Your task to perform on an android device: Clear all items from cart on amazon. Image 0: 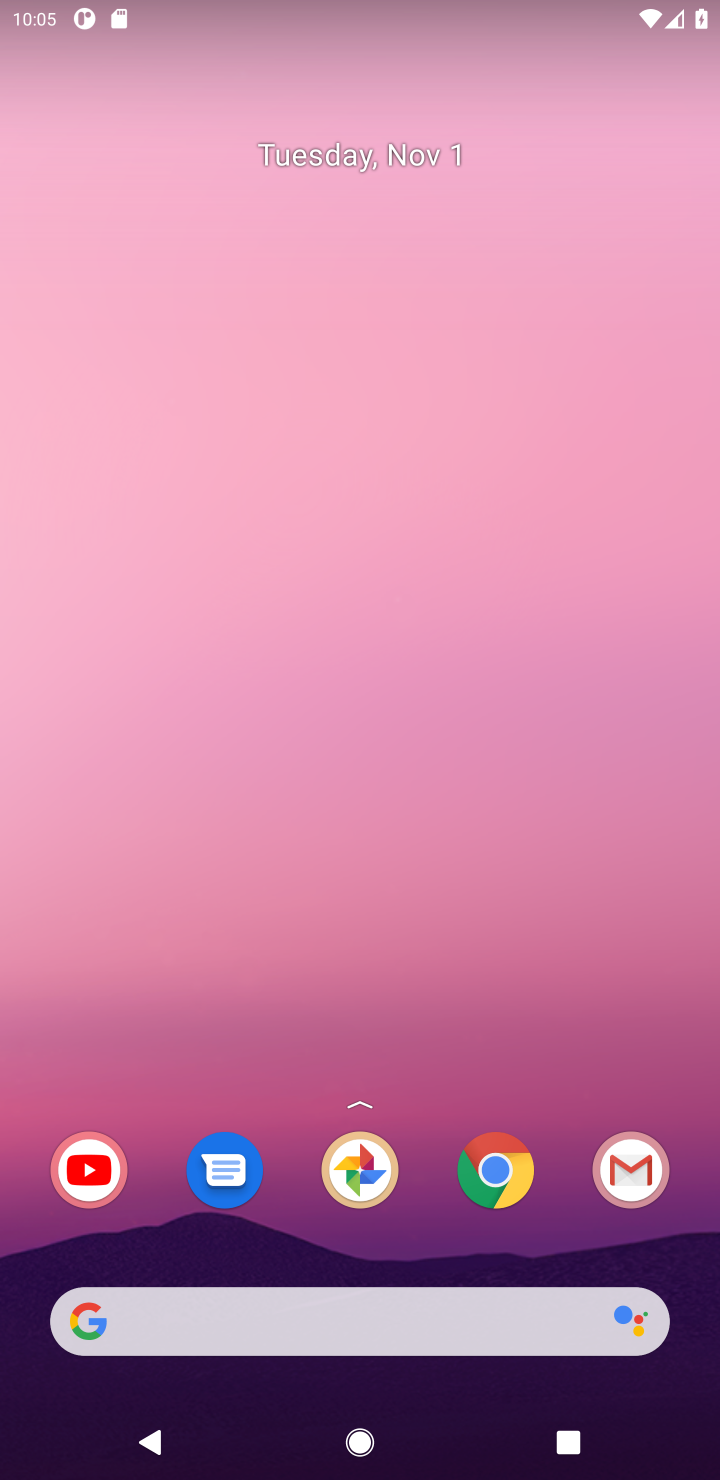
Step 0: click (493, 1183)
Your task to perform on an android device: Clear all items from cart on amazon. Image 1: 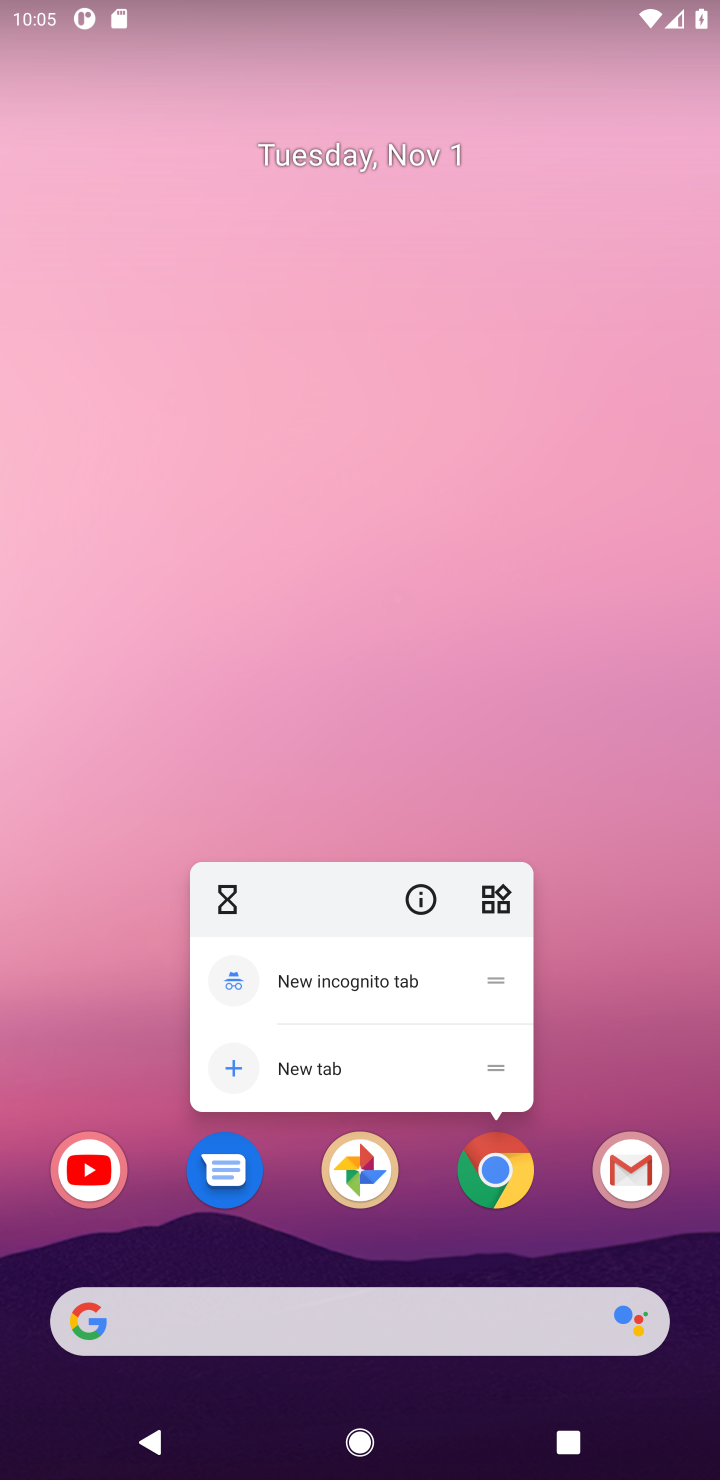
Step 1: click (504, 1175)
Your task to perform on an android device: Clear all items from cart on amazon. Image 2: 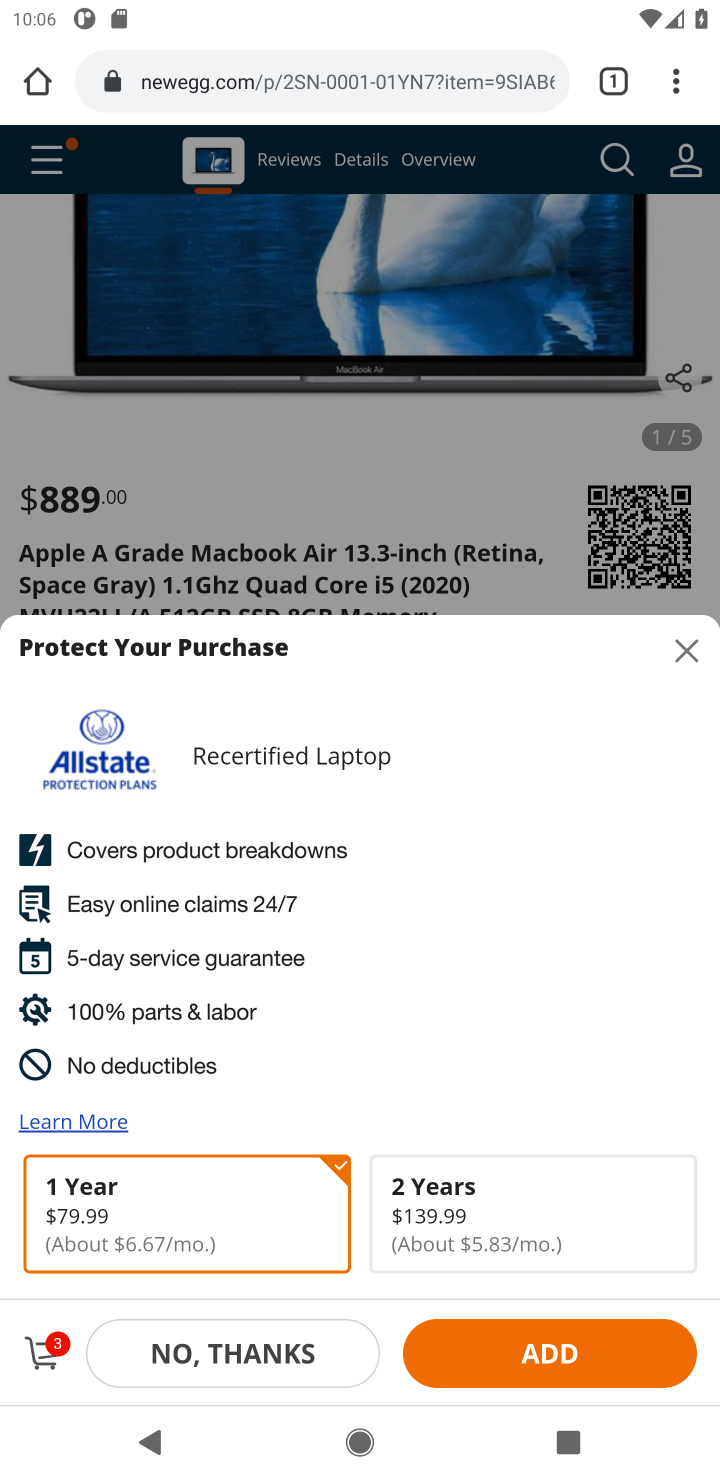
Step 2: click (440, 82)
Your task to perform on an android device: Clear all items from cart on amazon. Image 3: 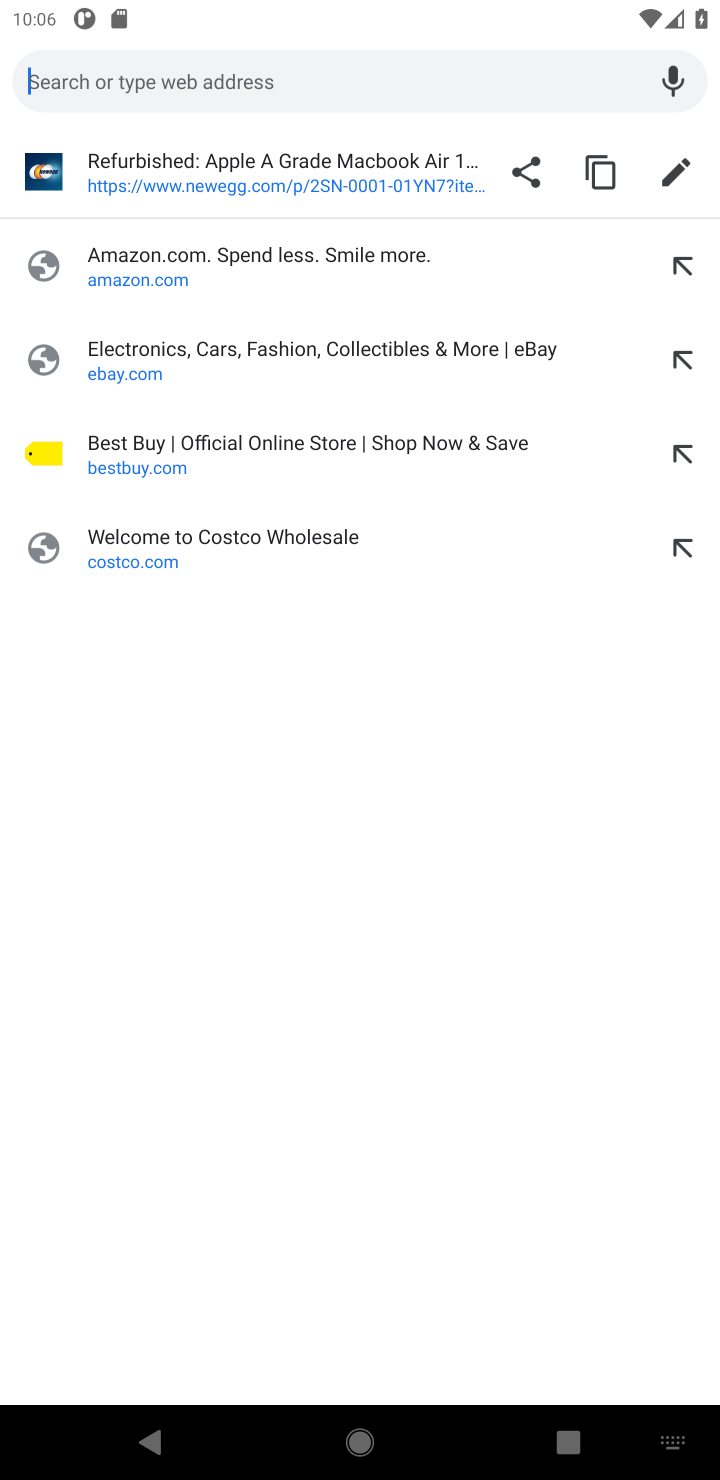
Step 3: type "amazon"
Your task to perform on an android device: Clear all items from cart on amazon. Image 4: 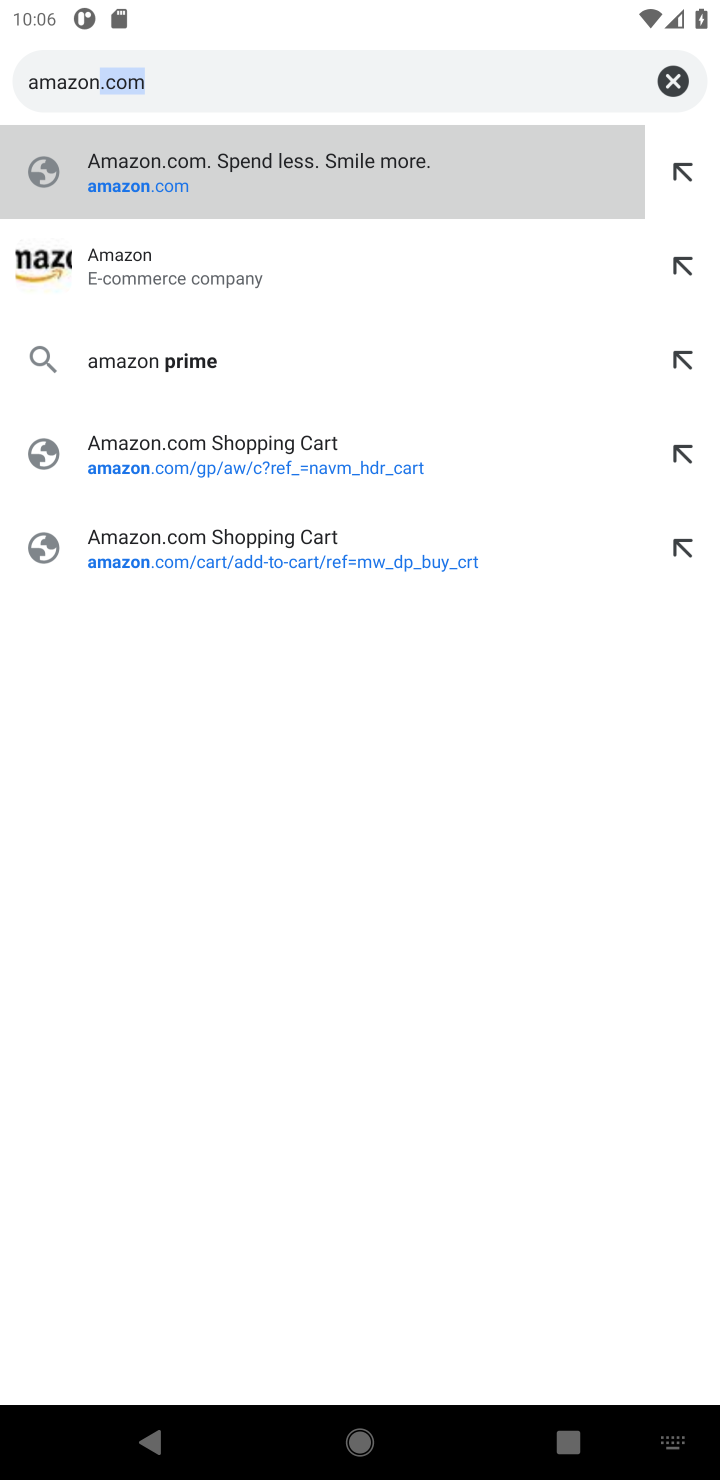
Step 4: press enter
Your task to perform on an android device: Clear all items from cart on amazon. Image 5: 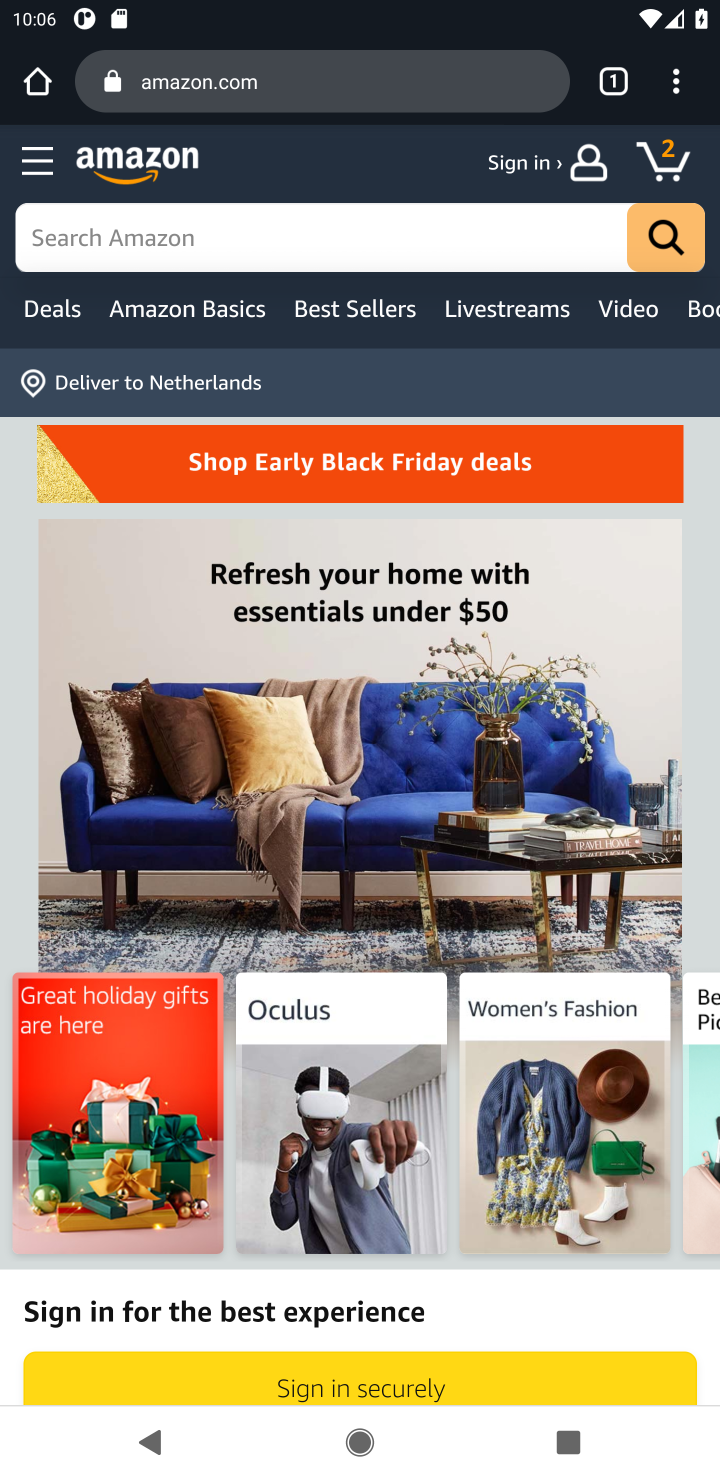
Step 5: click (657, 155)
Your task to perform on an android device: Clear all items from cart on amazon. Image 6: 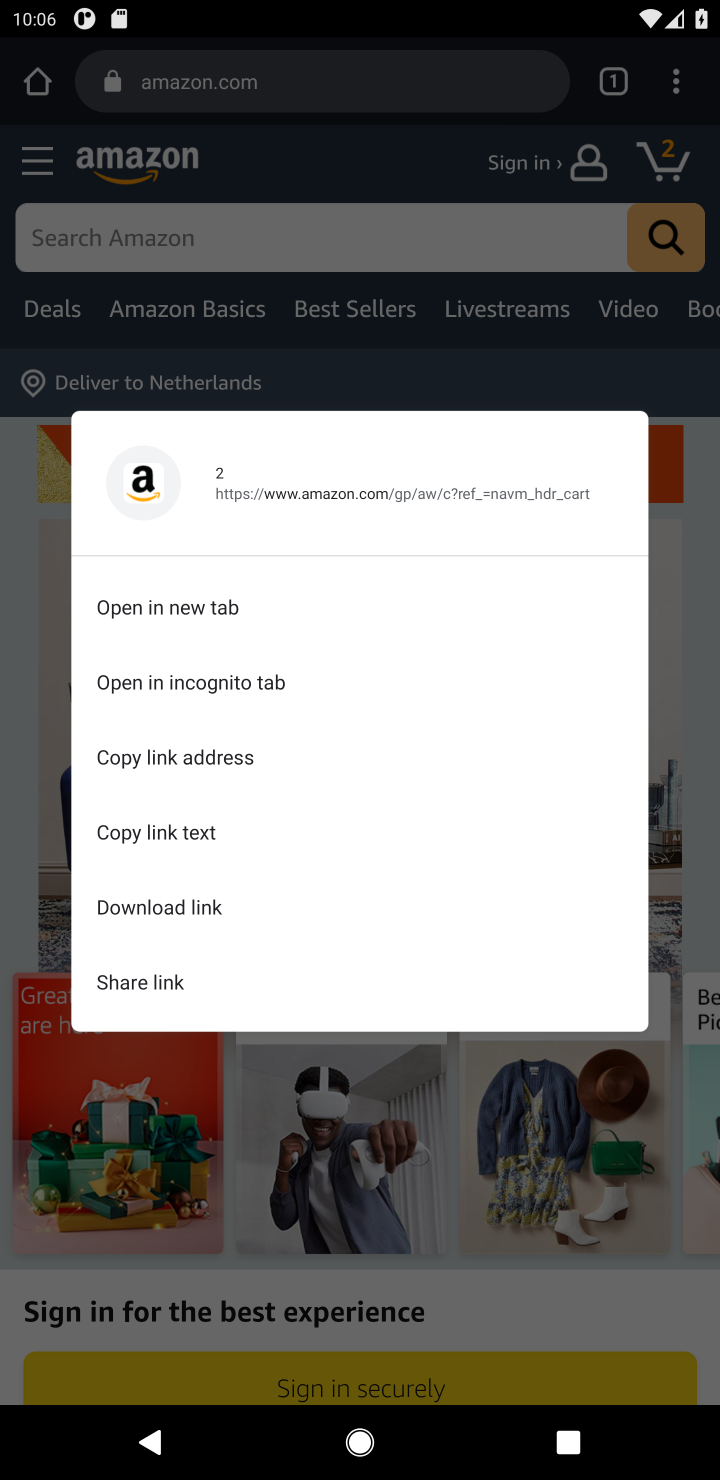
Step 6: click (685, 179)
Your task to perform on an android device: Clear all items from cart on amazon. Image 7: 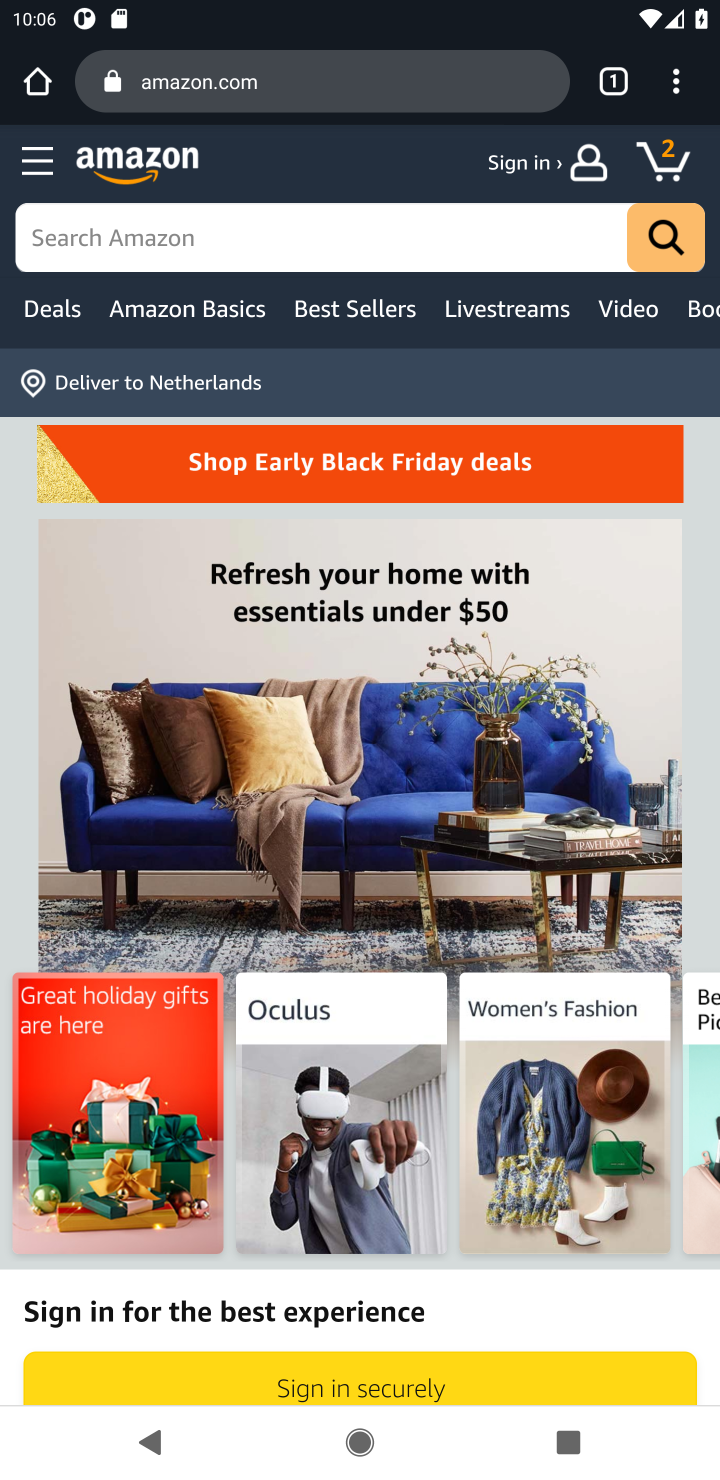
Step 7: click (656, 182)
Your task to perform on an android device: Clear all items from cart on amazon. Image 8: 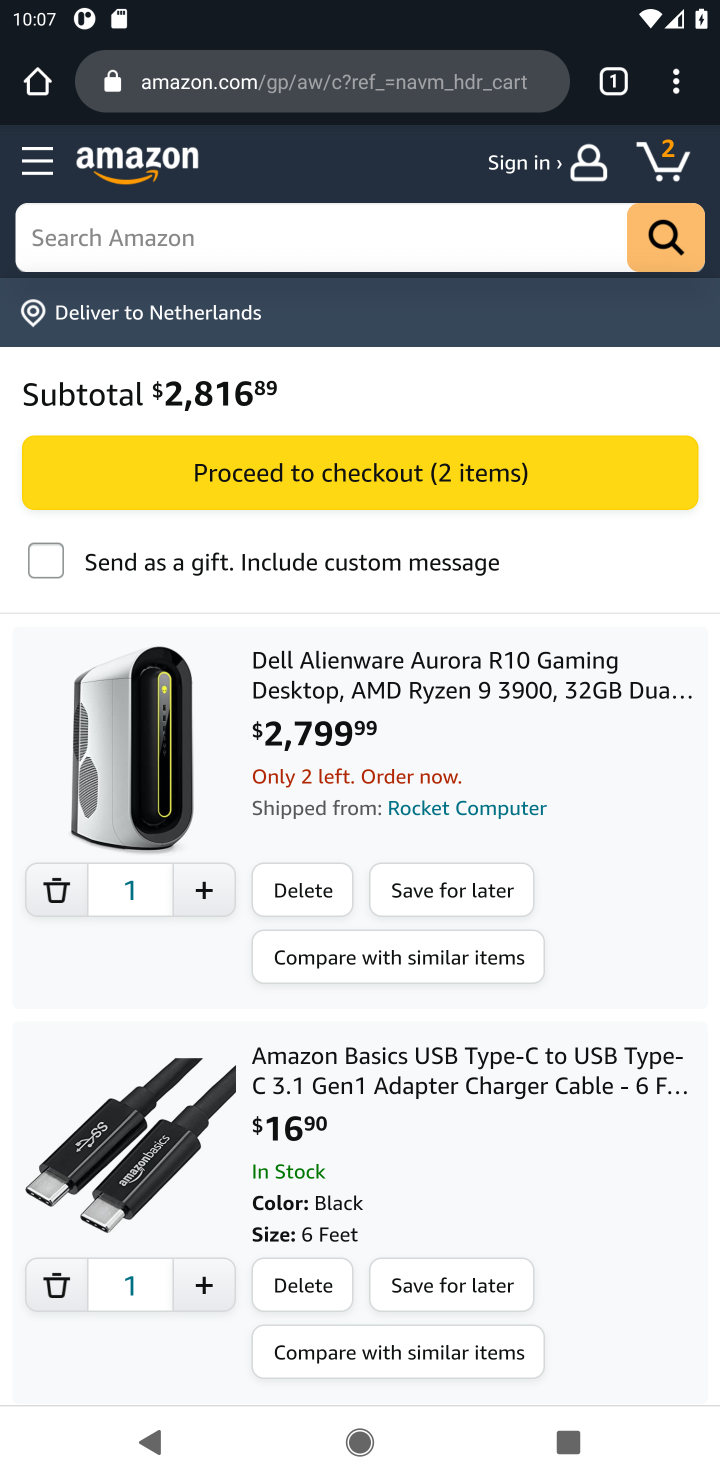
Step 8: click (66, 886)
Your task to perform on an android device: Clear all items from cart on amazon. Image 9: 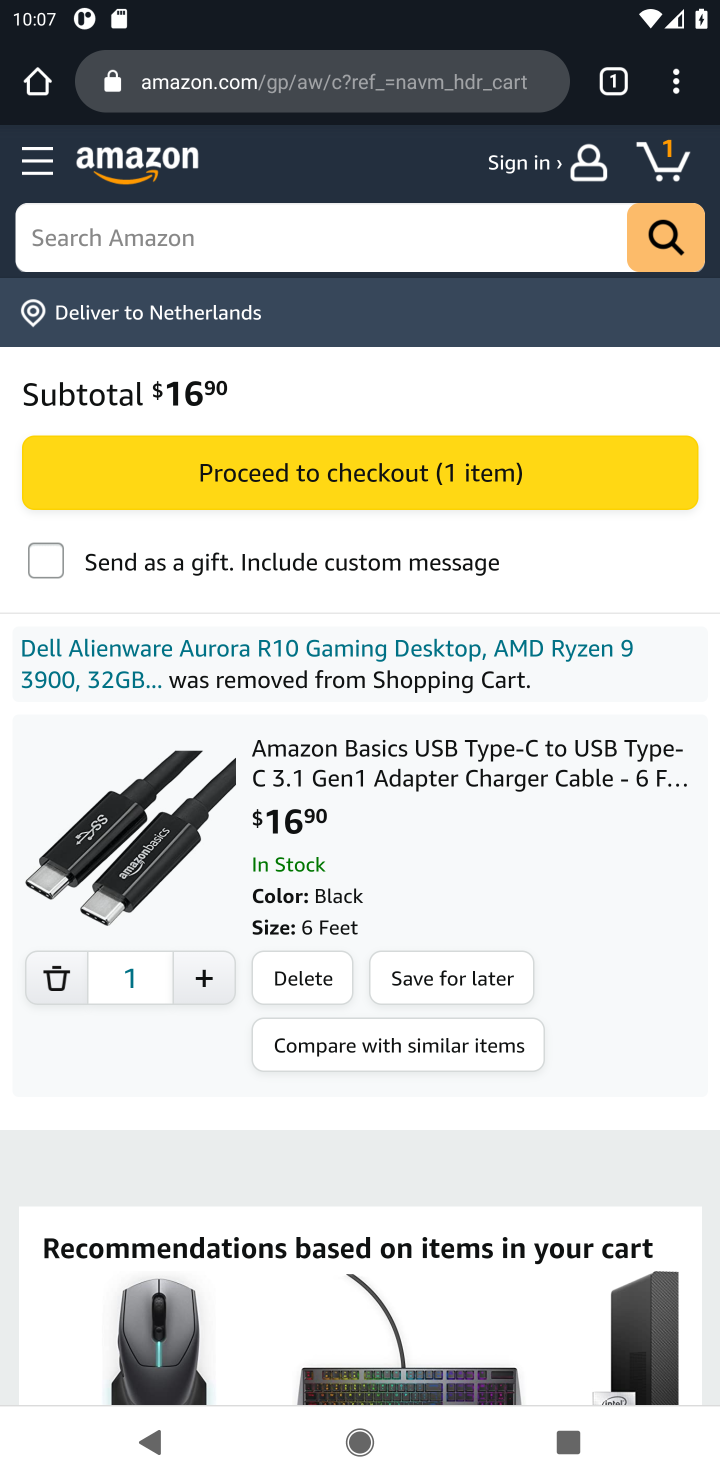
Step 9: click (67, 981)
Your task to perform on an android device: Clear all items from cart on amazon. Image 10: 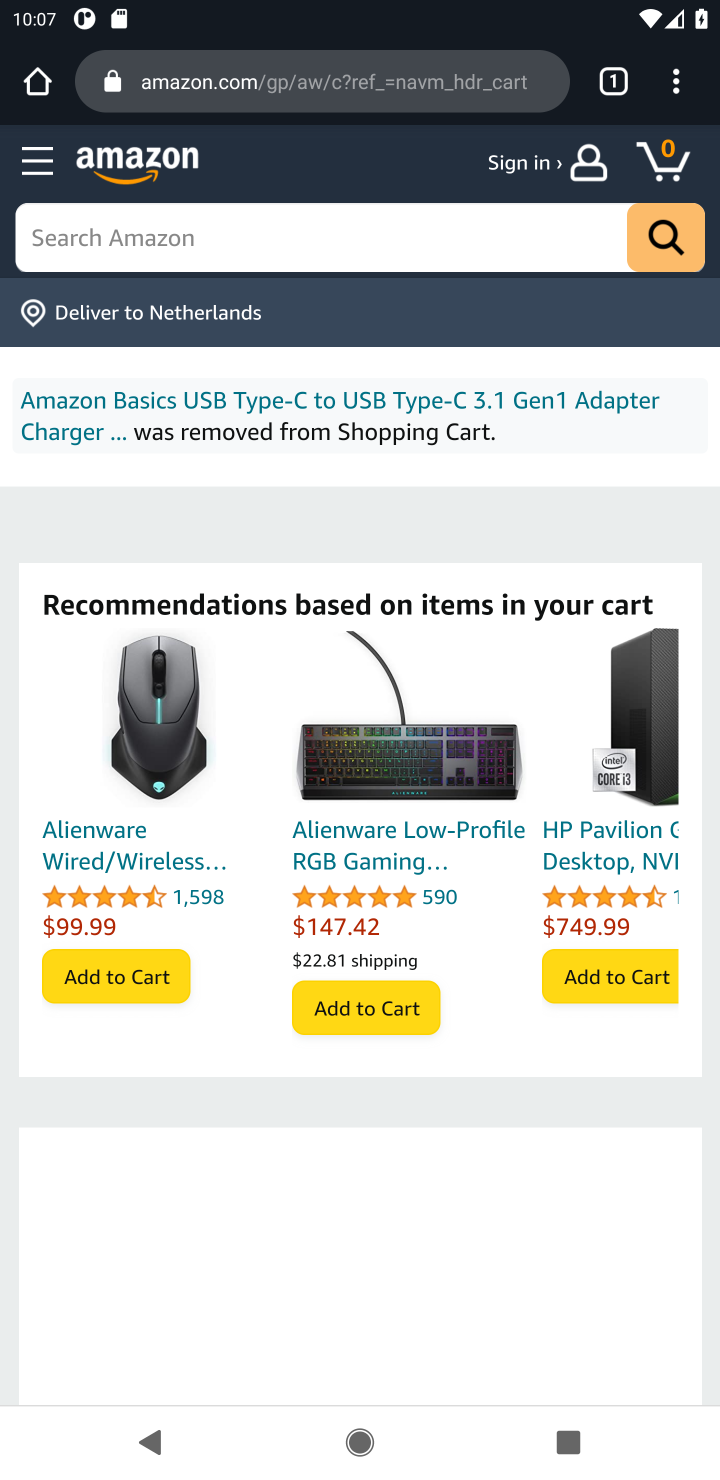
Step 10: task complete